Your task to perform on an android device: find photos in the google photos app Image 0: 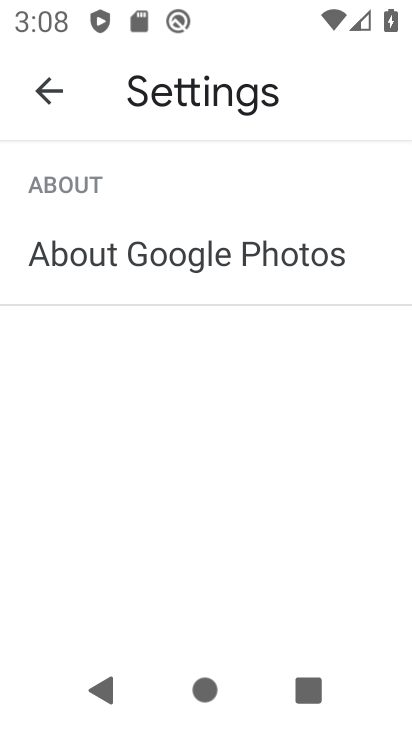
Step 0: press home button
Your task to perform on an android device: find photos in the google photos app Image 1: 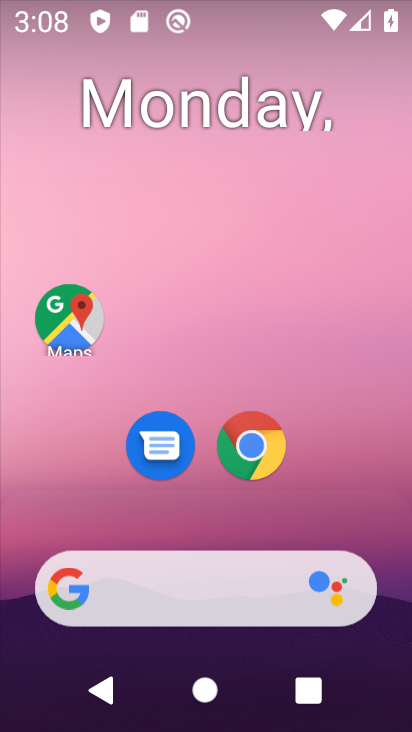
Step 1: drag from (247, 516) to (314, 35)
Your task to perform on an android device: find photos in the google photos app Image 2: 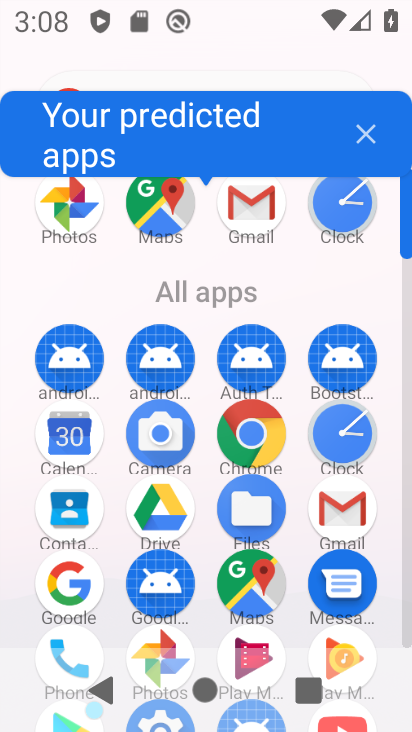
Step 2: drag from (258, 557) to (297, 352)
Your task to perform on an android device: find photos in the google photos app Image 3: 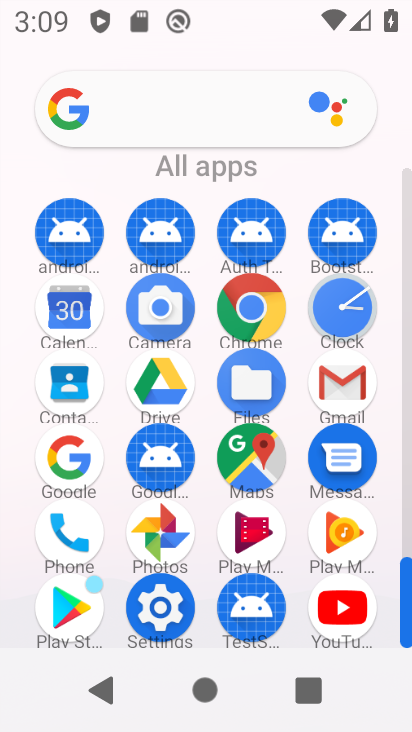
Step 3: click (184, 522)
Your task to perform on an android device: find photos in the google photos app Image 4: 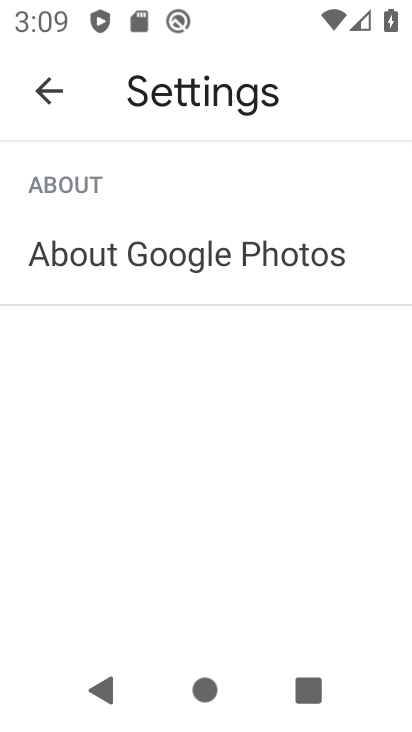
Step 4: click (57, 111)
Your task to perform on an android device: find photos in the google photos app Image 5: 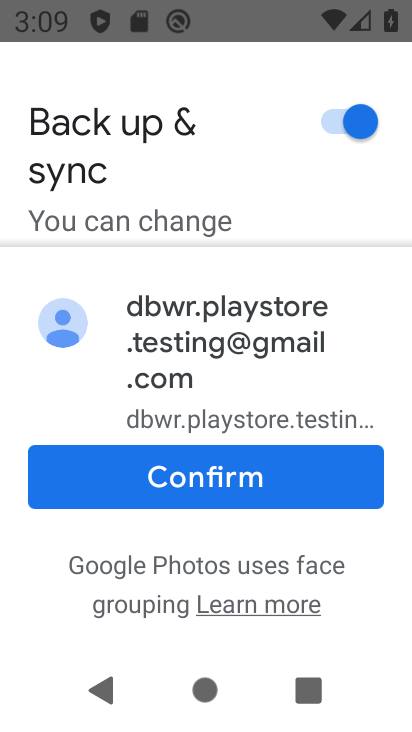
Step 5: click (177, 481)
Your task to perform on an android device: find photos in the google photos app Image 6: 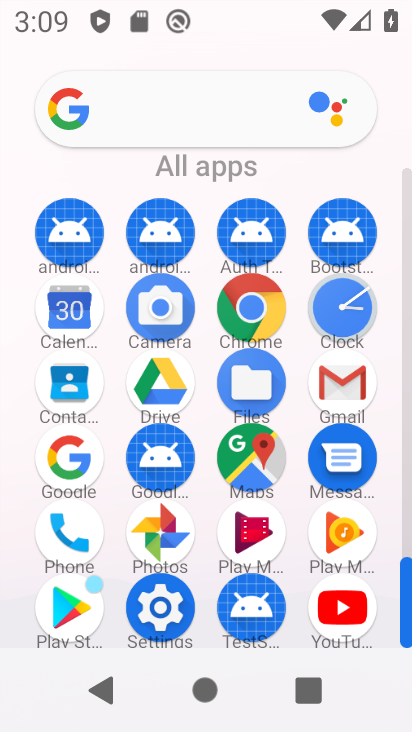
Step 6: click (165, 552)
Your task to perform on an android device: find photos in the google photos app Image 7: 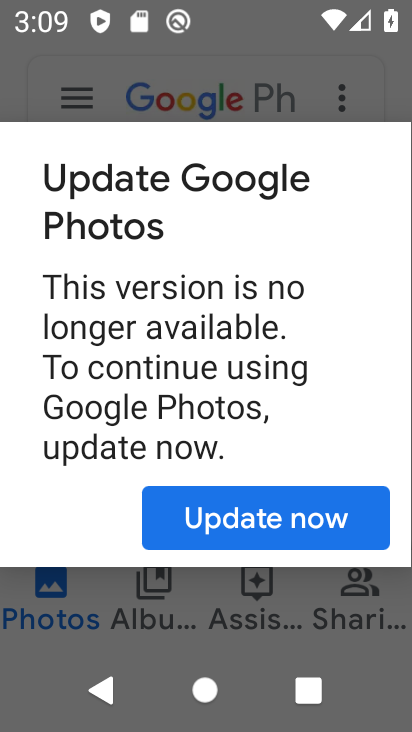
Step 7: click (317, 514)
Your task to perform on an android device: find photos in the google photos app Image 8: 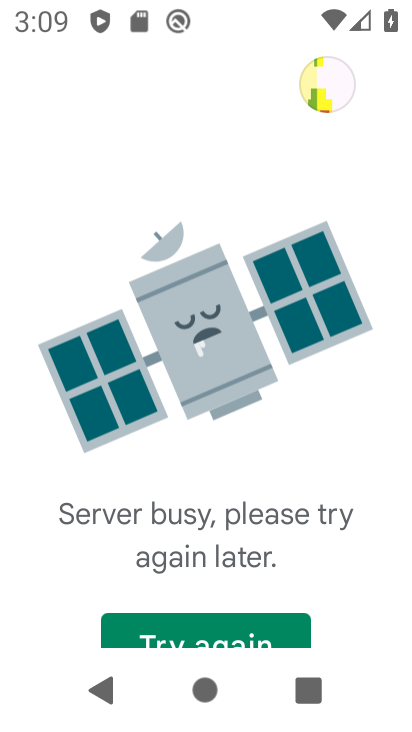
Step 8: drag from (260, 577) to (271, 225)
Your task to perform on an android device: find photos in the google photos app Image 9: 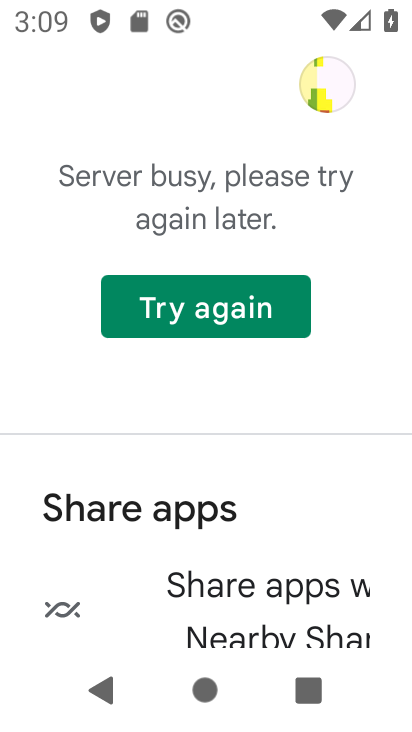
Step 9: click (263, 296)
Your task to perform on an android device: find photos in the google photos app Image 10: 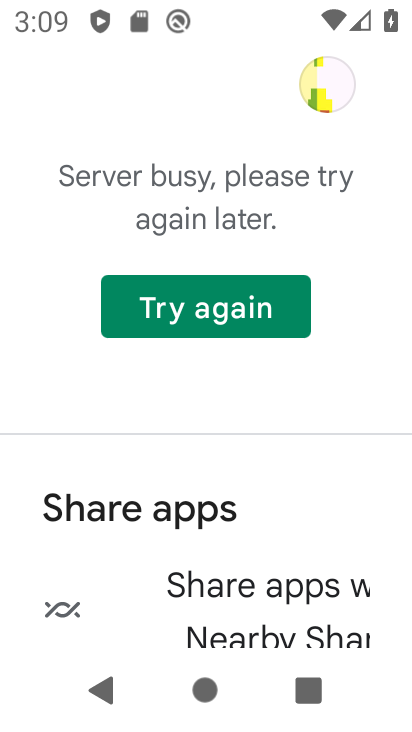
Step 10: click (263, 297)
Your task to perform on an android device: find photos in the google photos app Image 11: 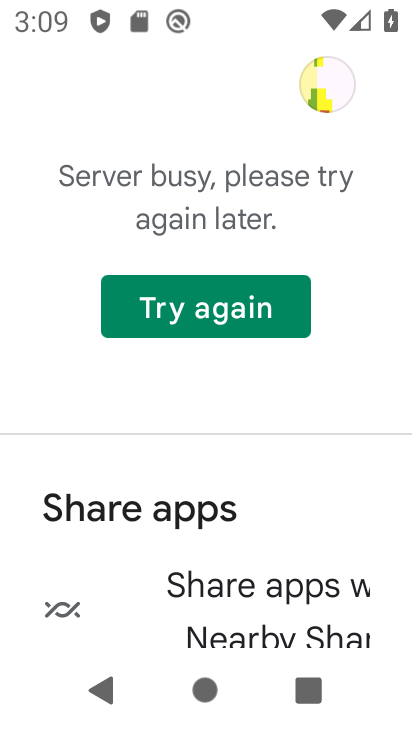
Step 11: task complete